Your task to perform on an android device: set the stopwatch Image 0: 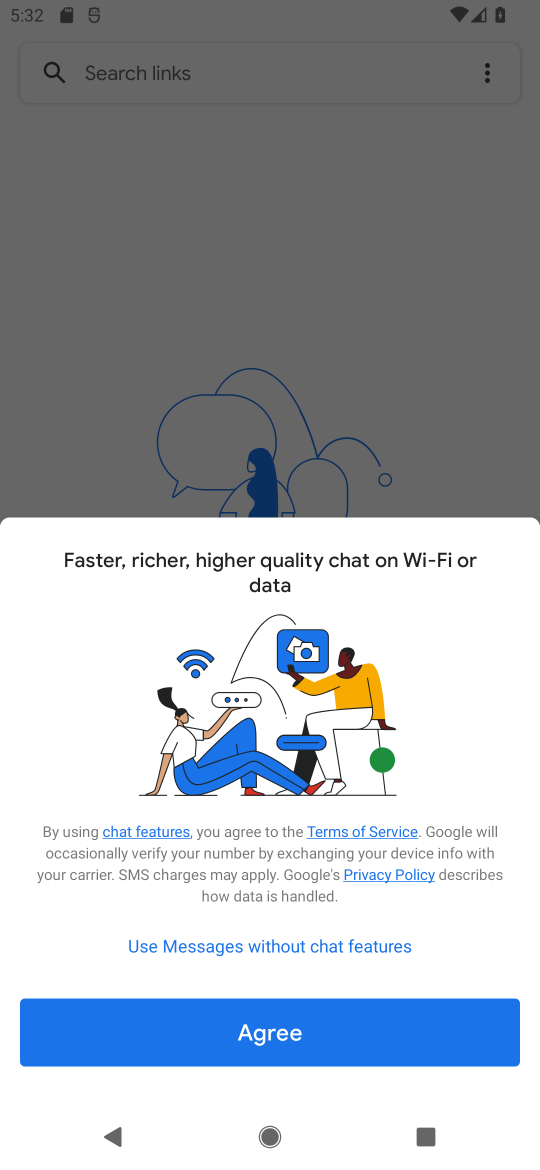
Step 0: press home button
Your task to perform on an android device: set the stopwatch Image 1: 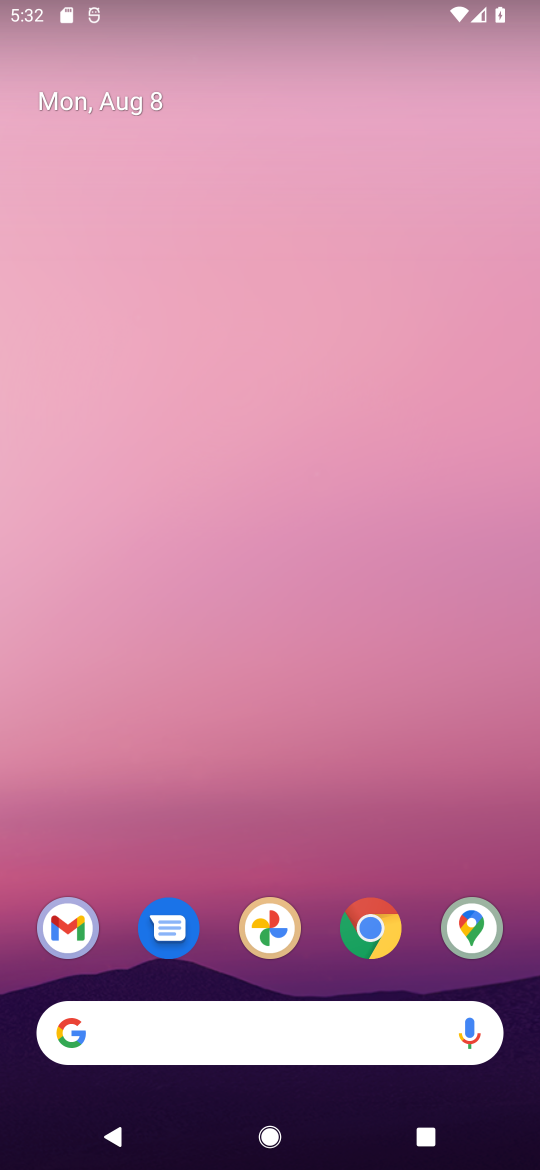
Step 1: drag from (223, 997) to (212, 37)
Your task to perform on an android device: set the stopwatch Image 2: 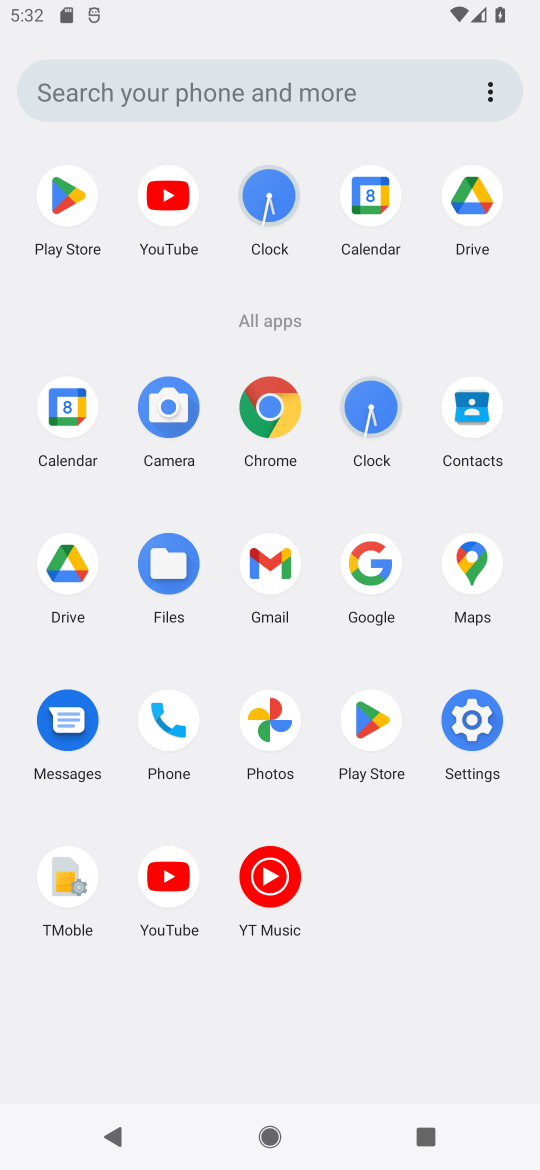
Step 2: click (380, 422)
Your task to perform on an android device: set the stopwatch Image 3: 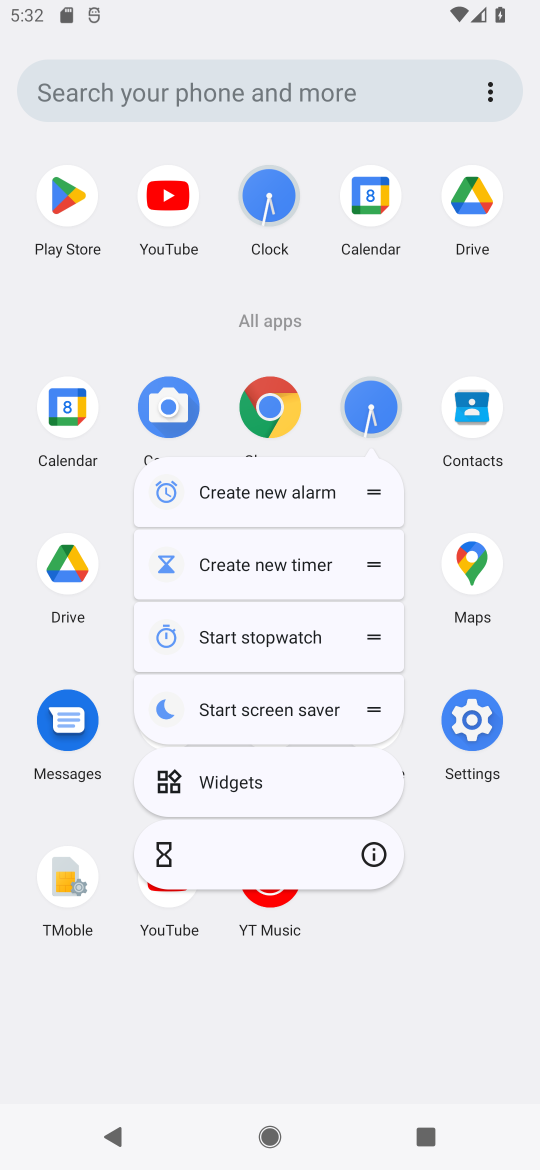
Step 3: click (371, 426)
Your task to perform on an android device: set the stopwatch Image 4: 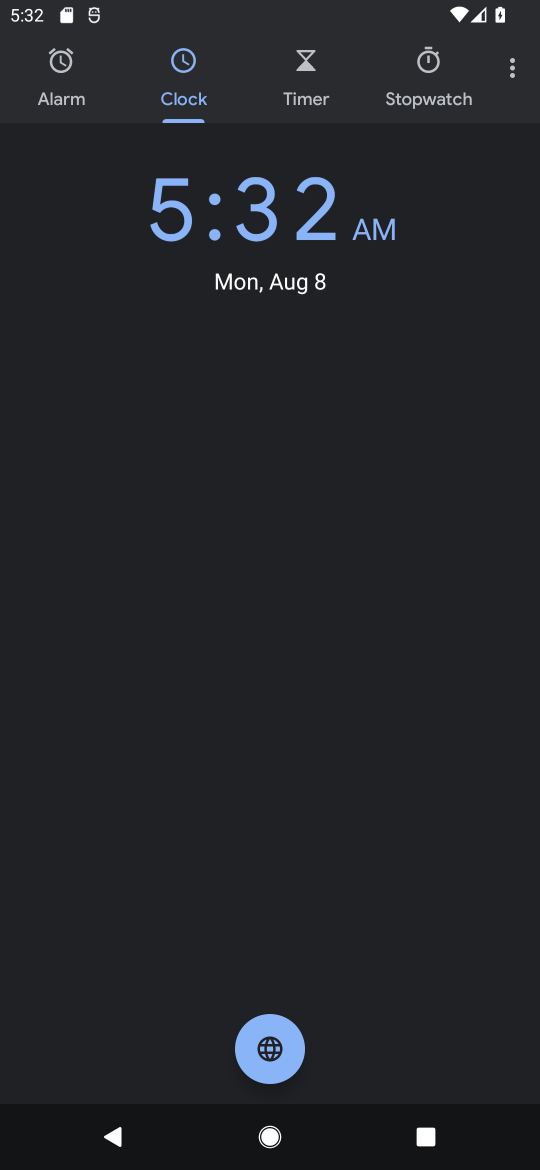
Step 4: click (405, 95)
Your task to perform on an android device: set the stopwatch Image 5: 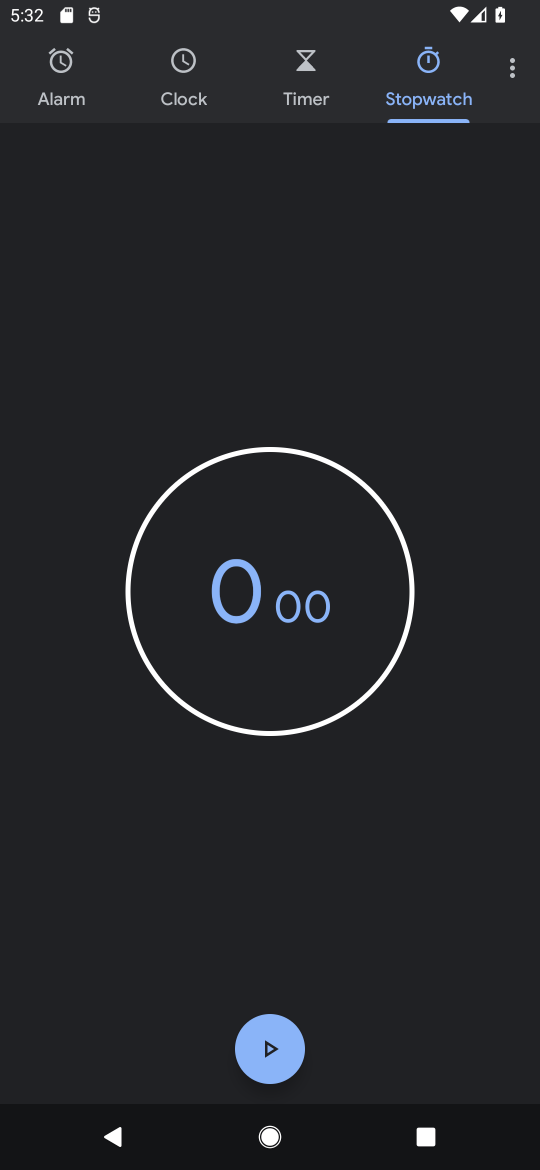
Step 5: click (279, 1043)
Your task to perform on an android device: set the stopwatch Image 6: 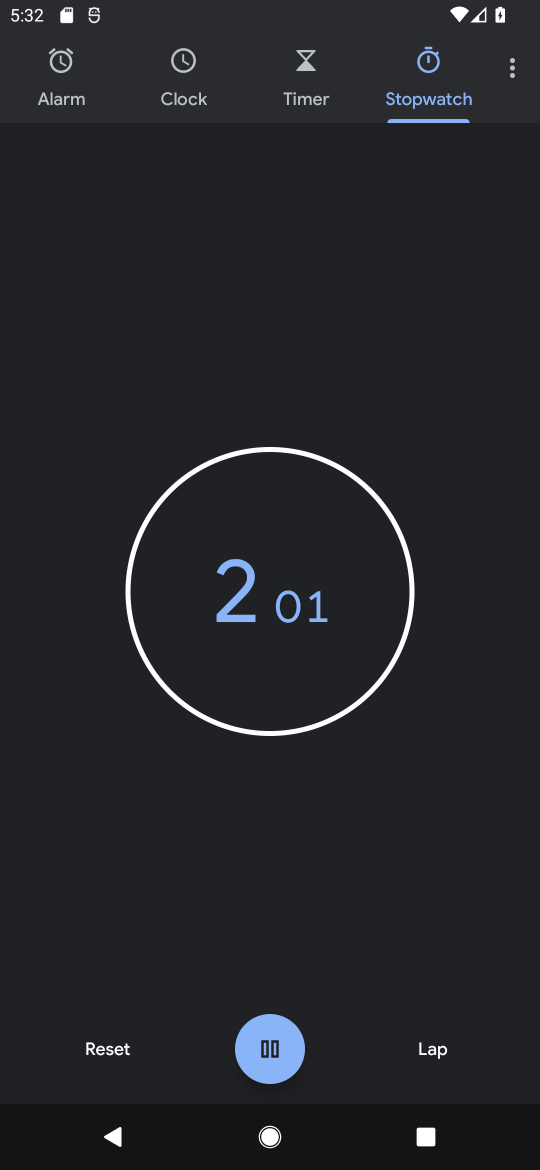
Step 6: task complete